Your task to perform on an android device: clear all cookies in the chrome app Image 0: 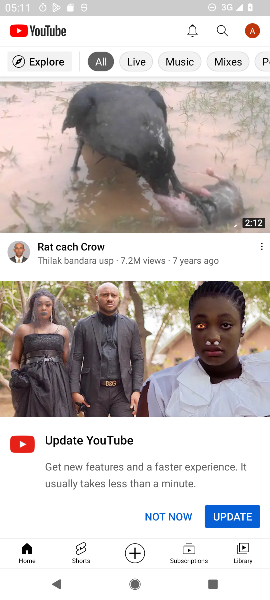
Step 0: press home button
Your task to perform on an android device: clear all cookies in the chrome app Image 1: 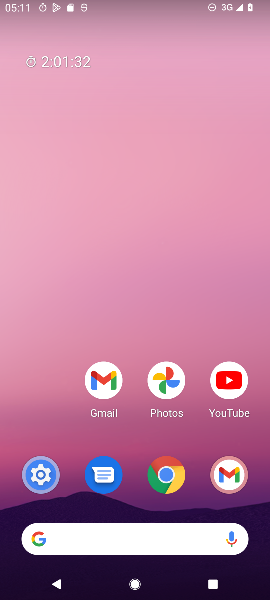
Step 1: drag from (65, 432) to (64, 212)
Your task to perform on an android device: clear all cookies in the chrome app Image 2: 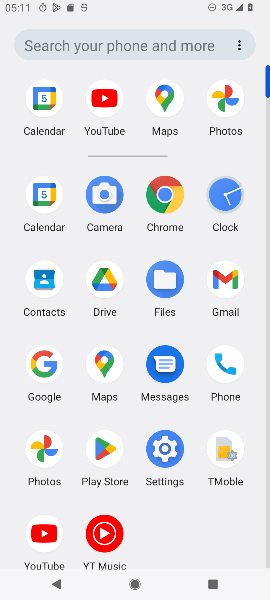
Step 2: click (166, 193)
Your task to perform on an android device: clear all cookies in the chrome app Image 3: 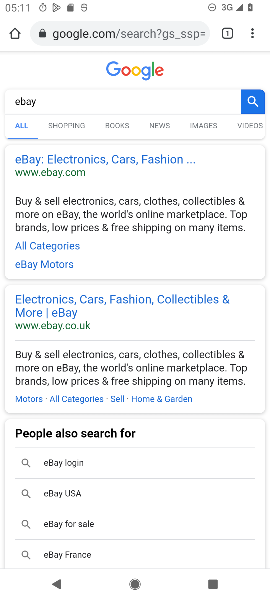
Step 3: click (253, 32)
Your task to perform on an android device: clear all cookies in the chrome app Image 4: 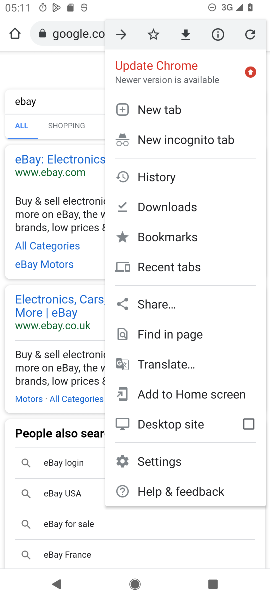
Step 4: click (173, 463)
Your task to perform on an android device: clear all cookies in the chrome app Image 5: 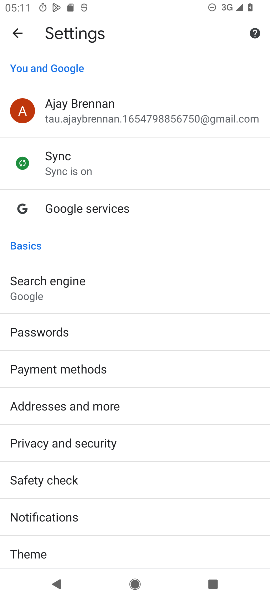
Step 5: drag from (174, 463) to (185, 402)
Your task to perform on an android device: clear all cookies in the chrome app Image 6: 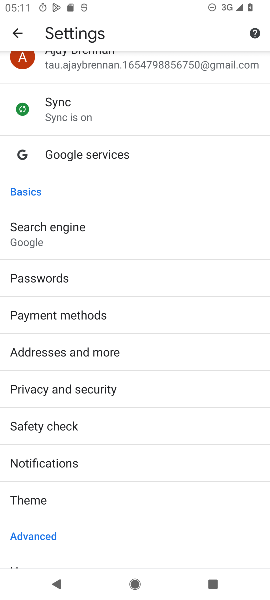
Step 6: drag from (189, 484) to (200, 401)
Your task to perform on an android device: clear all cookies in the chrome app Image 7: 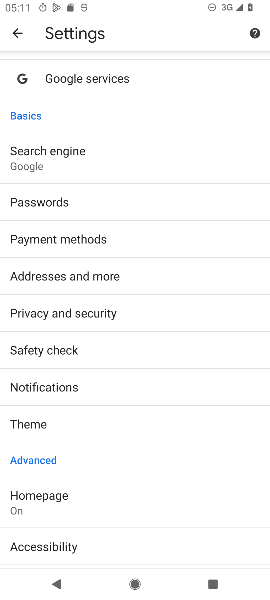
Step 7: click (185, 313)
Your task to perform on an android device: clear all cookies in the chrome app Image 8: 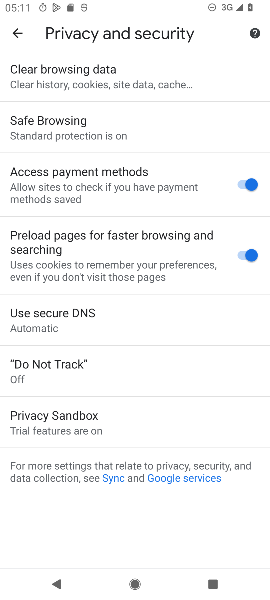
Step 8: click (186, 77)
Your task to perform on an android device: clear all cookies in the chrome app Image 9: 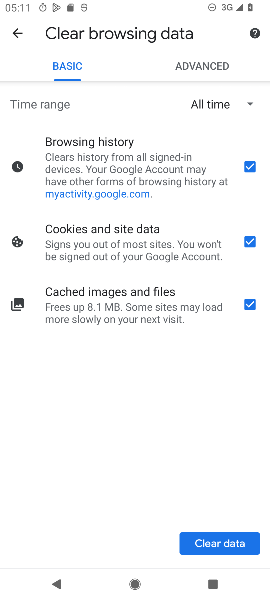
Step 9: click (238, 540)
Your task to perform on an android device: clear all cookies in the chrome app Image 10: 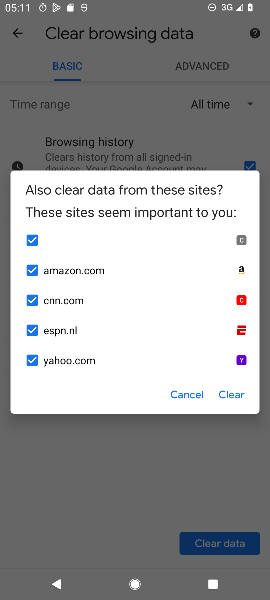
Step 10: click (240, 395)
Your task to perform on an android device: clear all cookies in the chrome app Image 11: 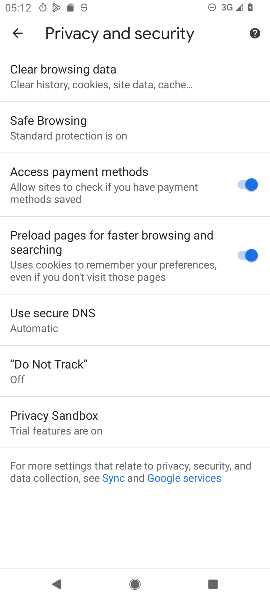
Step 11: task complete